Your task to perform on an android device: toggle priority inbox in the gmail app Image 0: 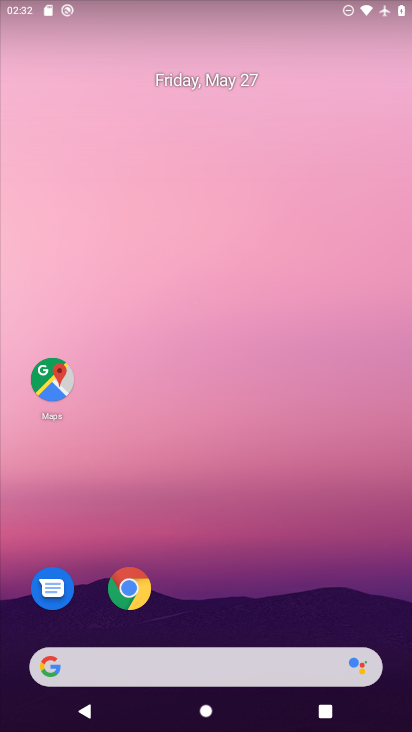
Step 0: drag from (375, 621) to (334, 93)
Your task to perform on an android device: toggle priority inbox in the gmail app Image 1: 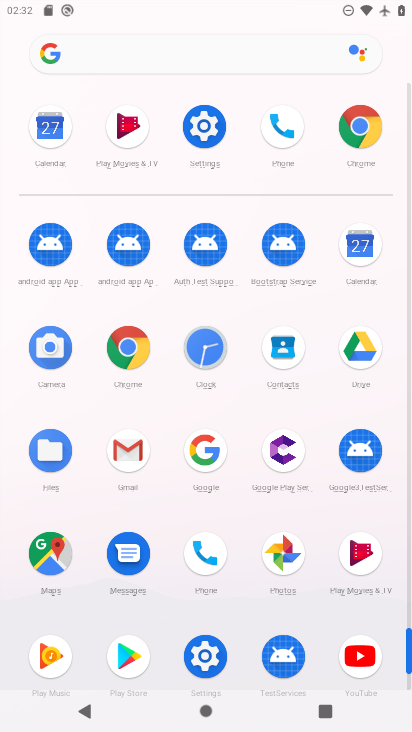
Step 1: click (124, 451)
Your task to perform on an android device: toggle priority inbox in the gmail app Image 2: 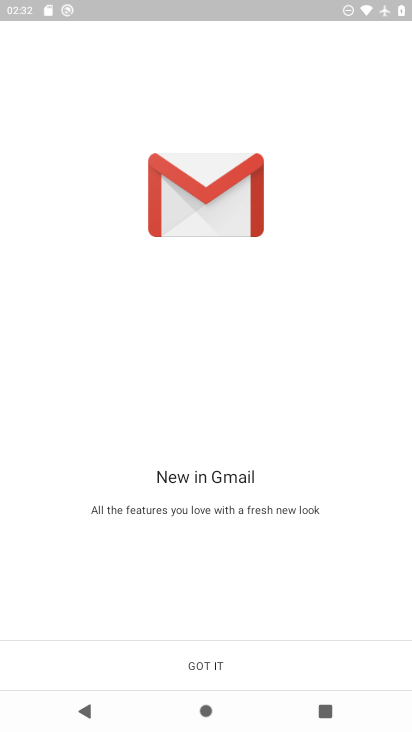
Step 2: click (200, 663)
Your task to perform on an android device: toggle priority inbox in the gmail app Image 3: 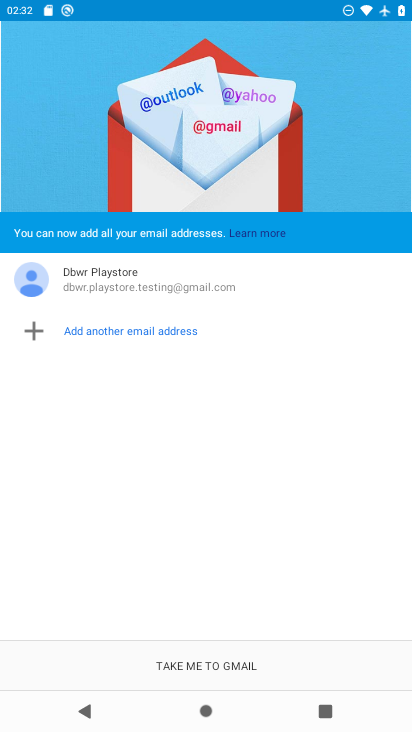
Step 3: click (200, 663)
Your task to perform on an android device: toggle priority inbox in the gmail app Image 4: 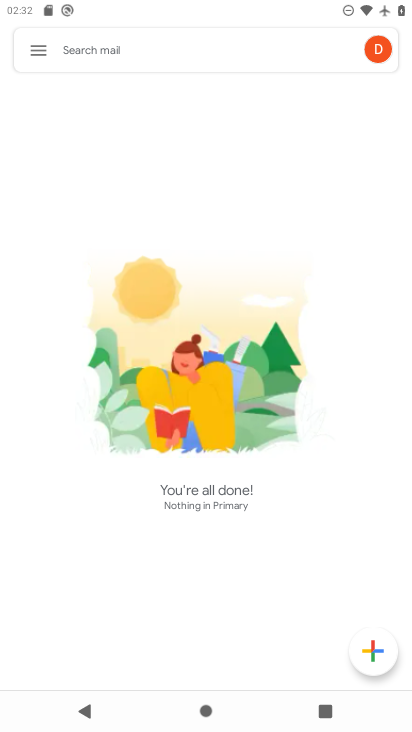
Step 4: click (38, 47)
Your task to perform on an android device: toggle priority inbox in the gmail app Image 5: 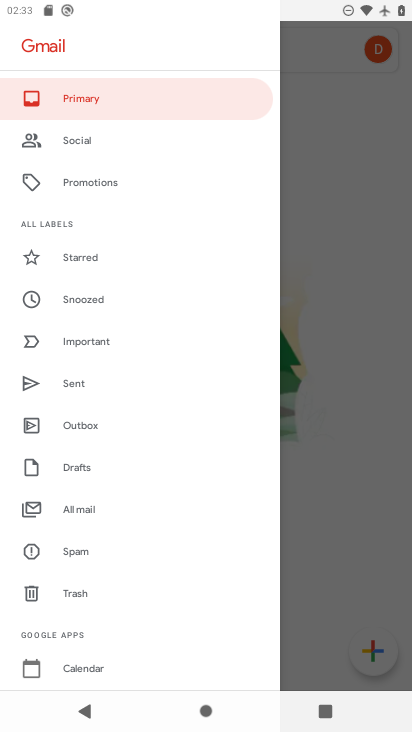
Step 5: drag from (158, 625) to (161, 143)
Your task to perform on an android device: toggle priority inbox in the gmail app Image 6: 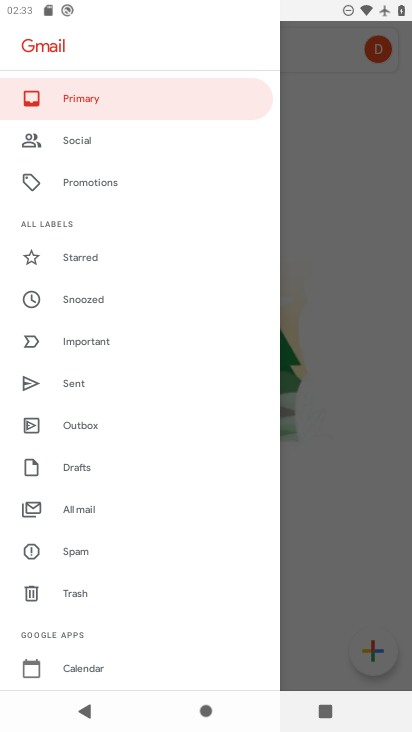
Step 6: drag from (181, 360) to (189, 214)
Your task to perform on an android device: toggle priority inbox in the gmail app Image 7: 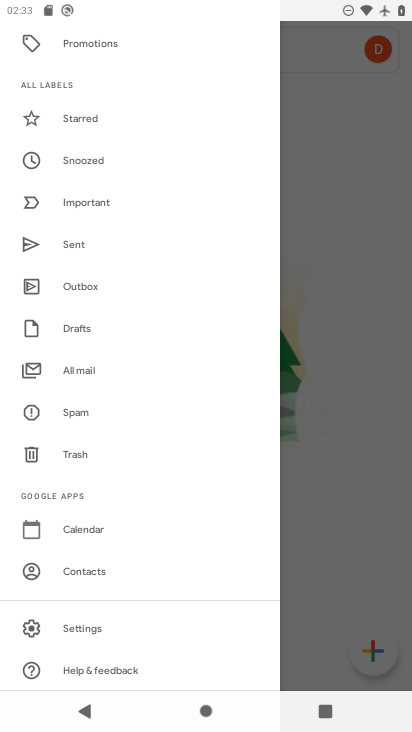
Step 7: click (85, 629)
Your task to perform on an android device: toggle priority inbox in the gmail app Image 8: 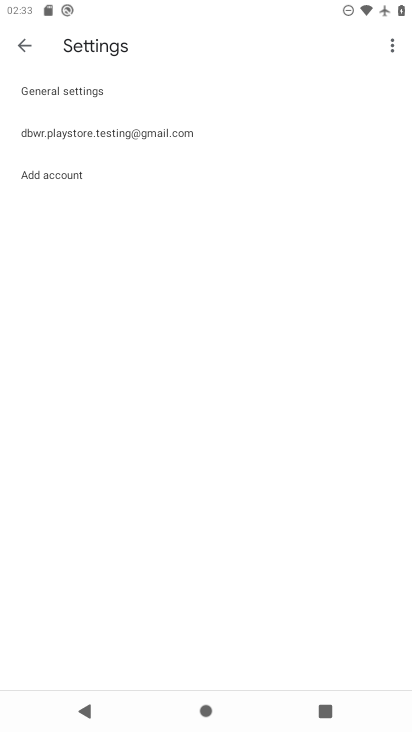
Step 8: click (113, 135)
Your task to perform on an android device: toggle priority inbox in the gmail app Image 9: 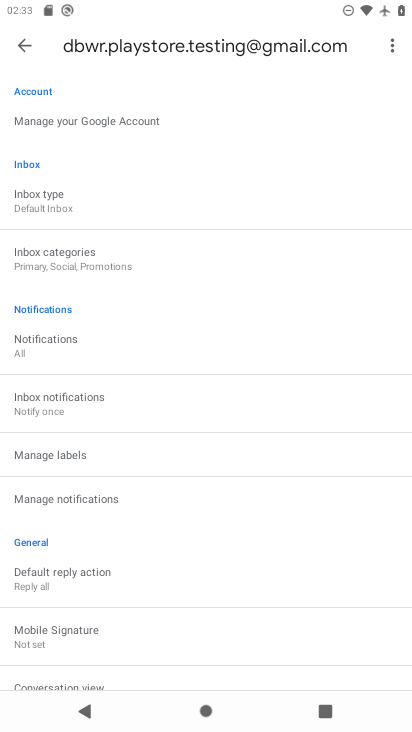
Step 9: click (36, 200)
Your task to perform on an android device: toggle priority inbox in the gmail app Image 10: 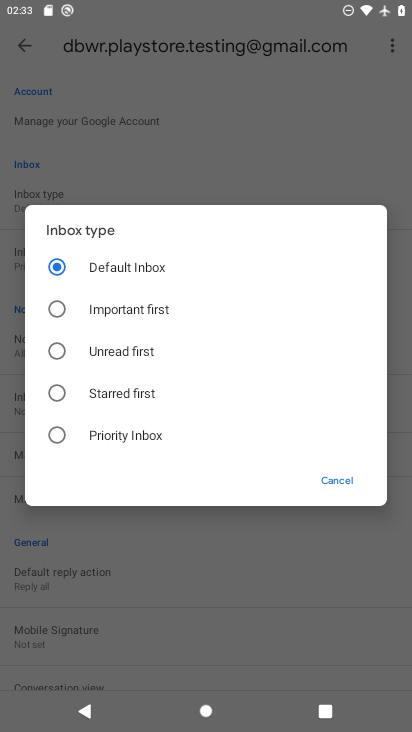
Step 10: click (58, 438)
Your task to perform on an android device: toggle priority inbox in the gmail app Image 11: 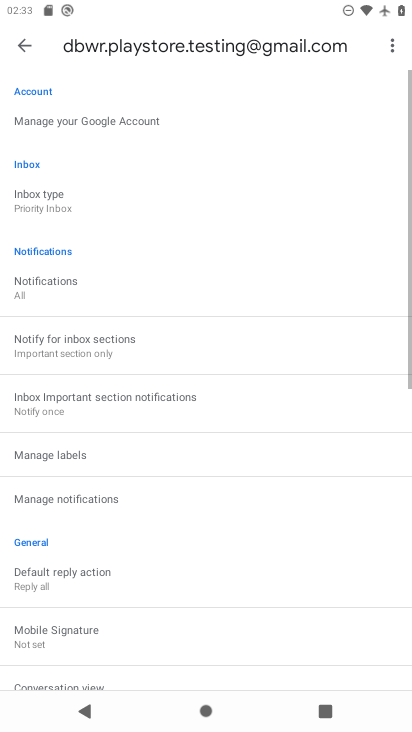
Step 11: task complete